Your task to perform on an android device: Open the web browser Image 0: 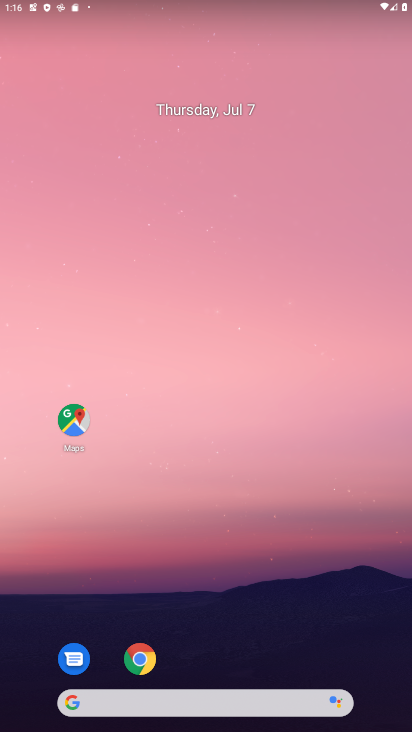
Step 0: click (138, 660)
Your task to perform on an android device: Open the web browser Image 1: 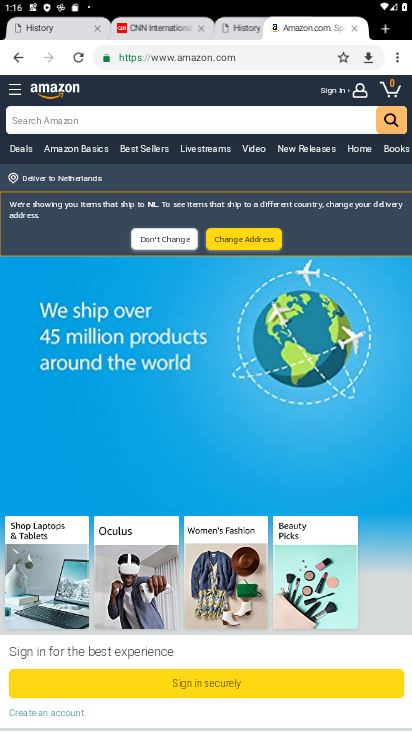
Step 1: task complete